Your task to perform on an android device: What's the weather going to be tomorrow? Image 0: 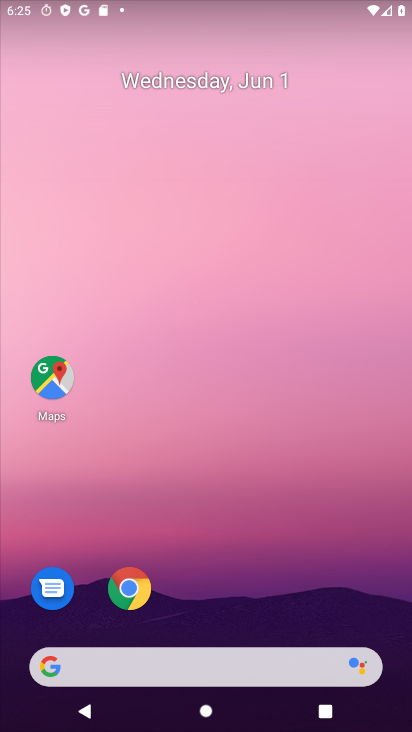
Step 0: click (230, 239)
Your task to perform on an android device: What's the weather going to be tomorrow? Image 1: 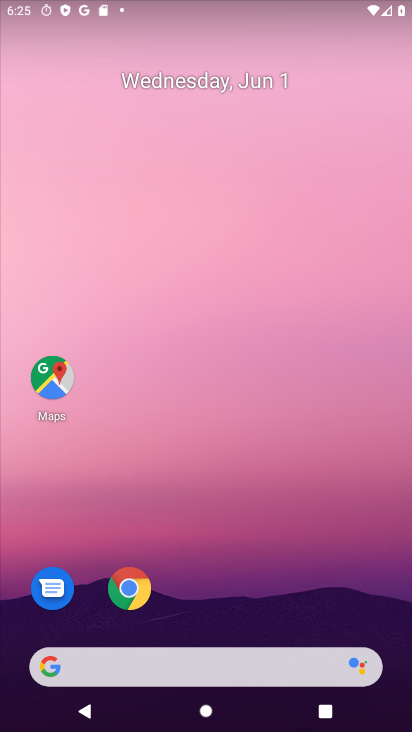
Step 1: click (193, 663)
Your task to perform on an android device: What's the weather going to be tomorrow? Image 2: 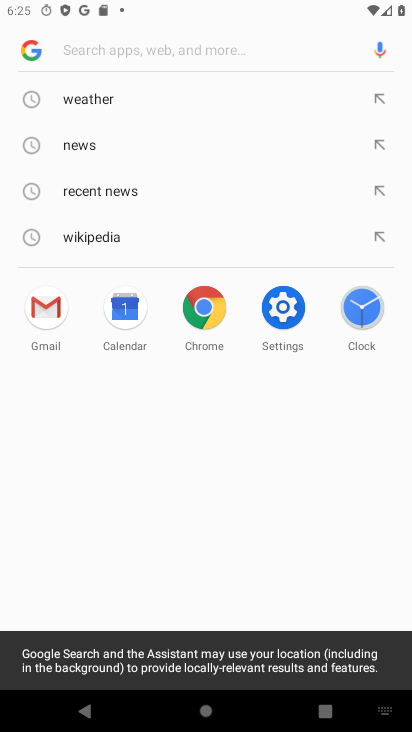
Step 2: click (94, 102)
Your task to perform on an android device: What's the weather going to be tomorrow? Image 3: 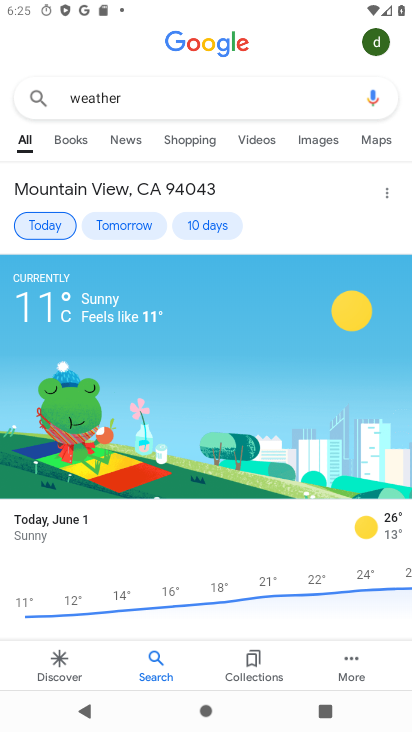
Step 3: click (137, 229)
Your task to perform on an android device: What's the weather going to be tomorrow? Image 4: 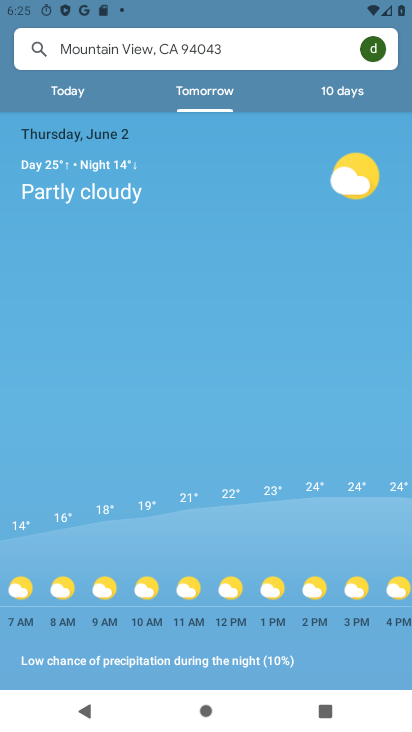
Step 4: task complete